Your task to perform on an android device: turn off location history Image 0: 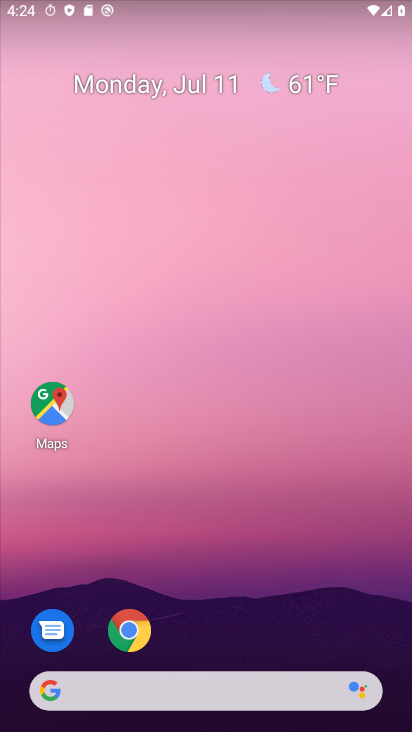
Step 0: drag from (245, 573) to (10, 36)
Your task to perform on an android device: turn off location history Image 1: 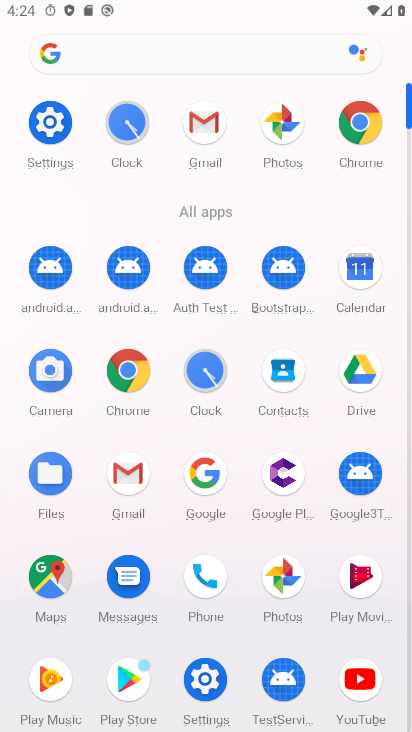
Step 1: click (41, 131)
Your task to perform on an android device: turn off location history Image 2: 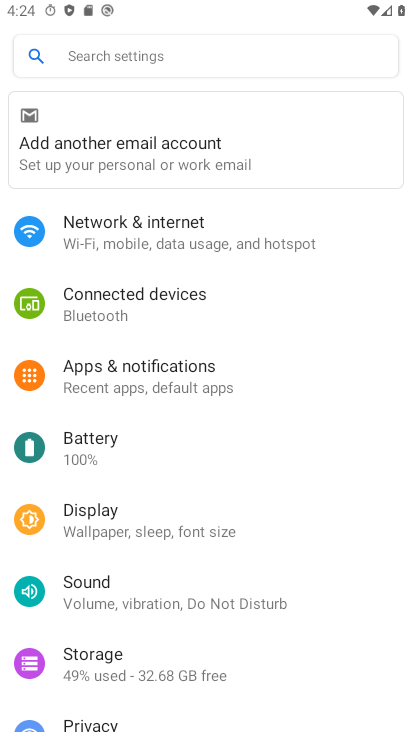
Step 2: drag from (195, 616) to (268, 217)
Your task to perform on an android device: turn off location history Image 3: 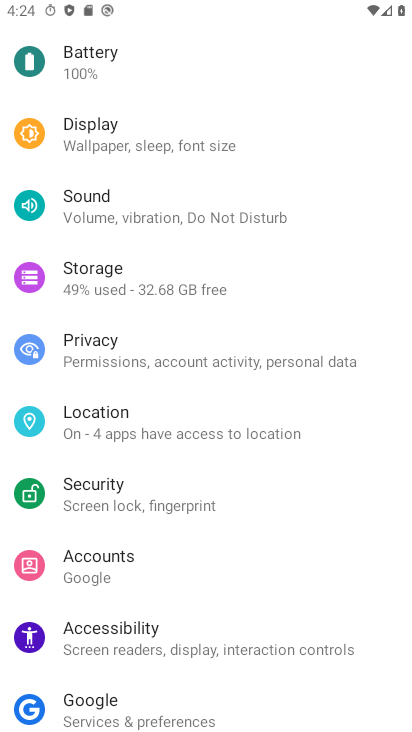
Step 3: click (129, 438)
Your task to perform on an android device: turn off location history Image 4: 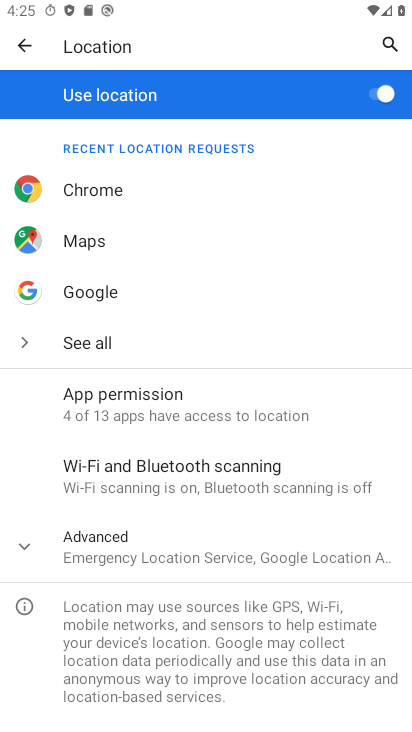
Step 4: click (392, 96)
Your task to perform on an android device: turn off location history Image 5: 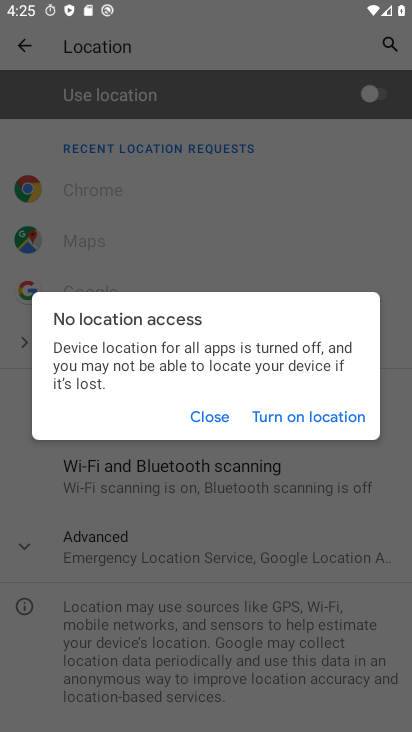
Step 5: task complete